Your task to perform on an android device: visit the assistant section in the google photos Image 0: 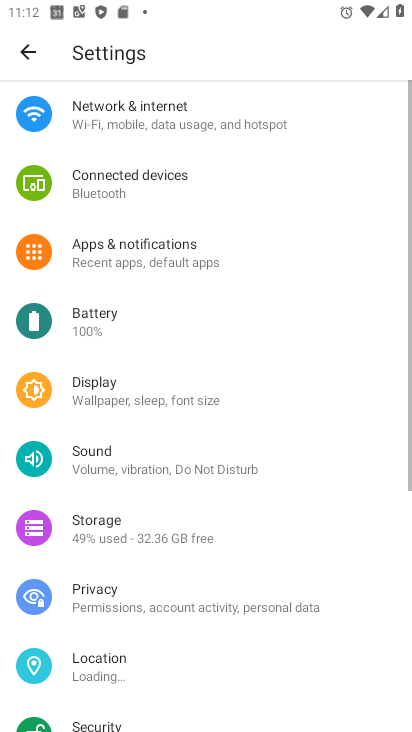
Step 0: drag from (198, 634) to (211, 103)
Your task to perform on an android device: visit the assistant section in the google photos Image 1: 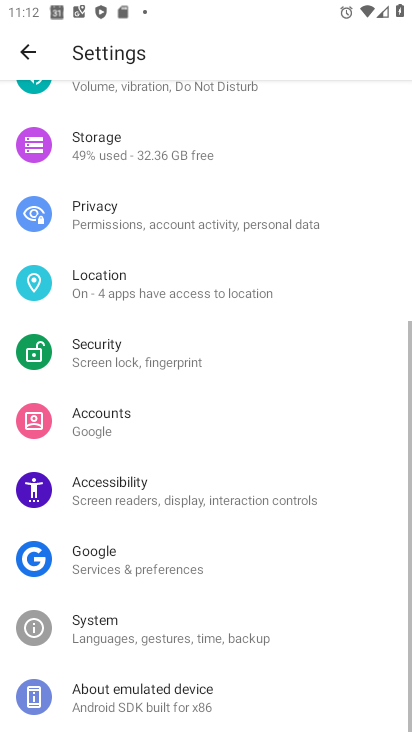
Step 1: press home button
Your task to perform on an android device: visit the assistant section in the google photos Image 2: 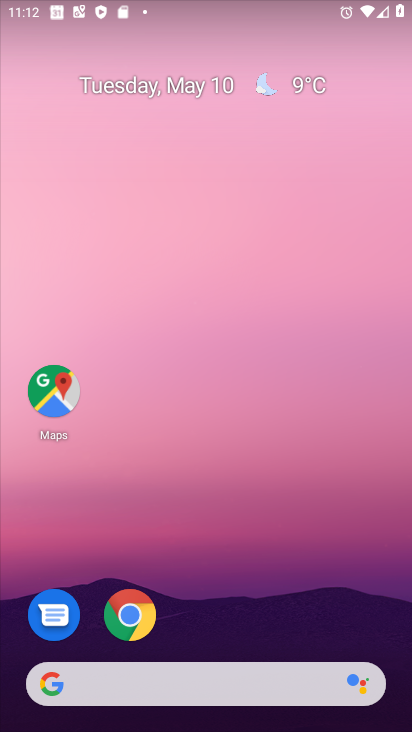
Step 2: drag from (206, 649) to (241, 65)
Your task to perform on an android device: visit the assistant section in the google photos Image 3: 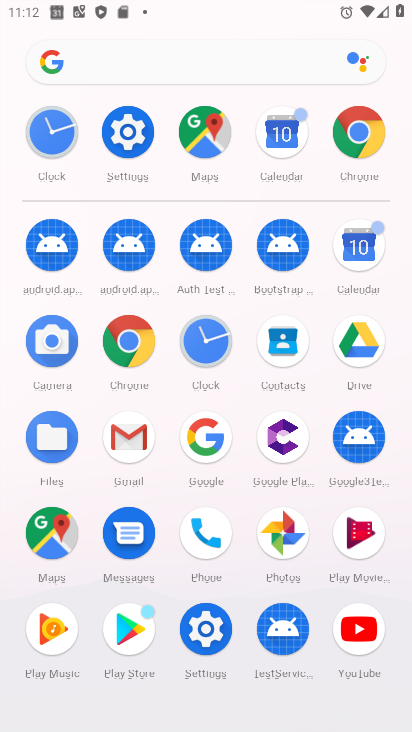
Step 3: click (278, 524)
Your task to perform on an android device: visit the assistant section in the google photos Image 4: 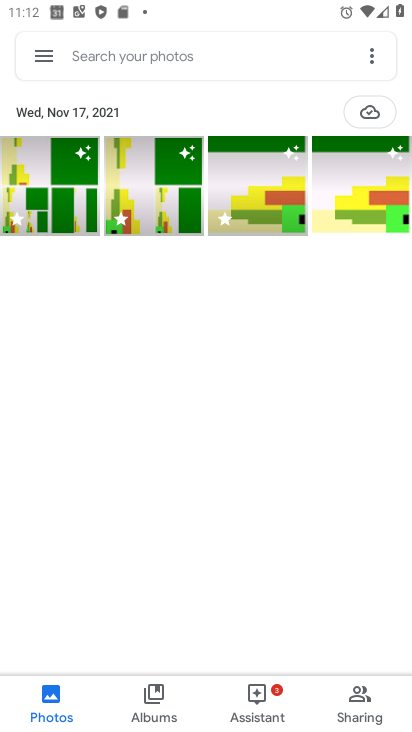
Step 4: click (259, 699)
Your task to perform on an android device: visit the assistant section in the google photos Image 5: 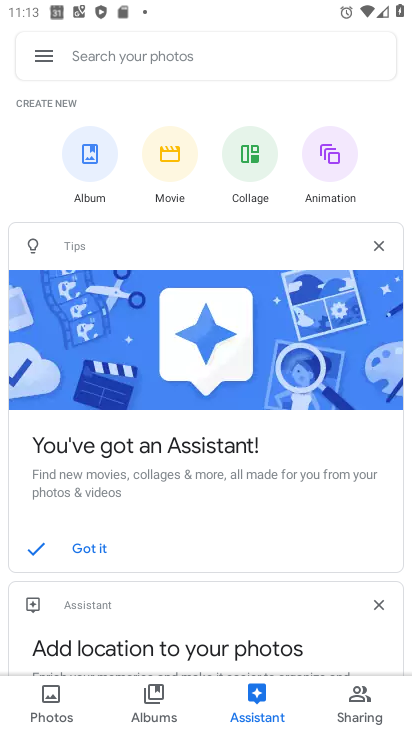
Step 5: task complete